Your task to perform on an android device: Open sound settings Image 0: 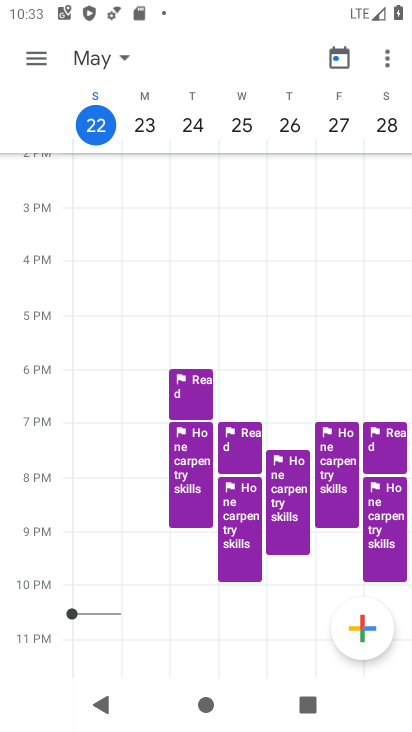
Step 0: press home button
Your task to perform on an android device: Open sound settings Image 1: 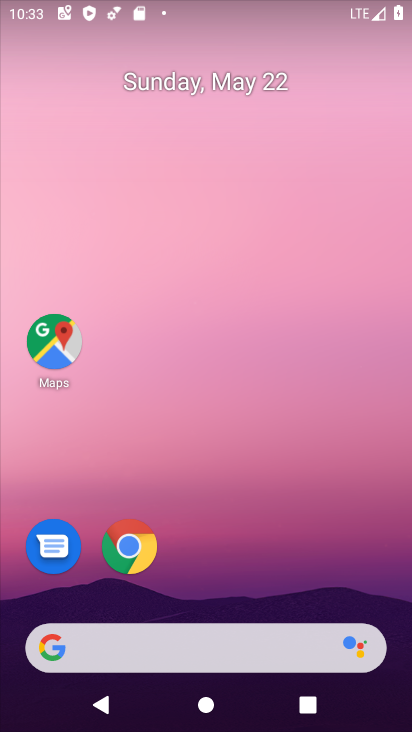
Step 1: drag from (181, 601) to (262, 91)
Your task to perform on an android device: Open sound settings Image 2: 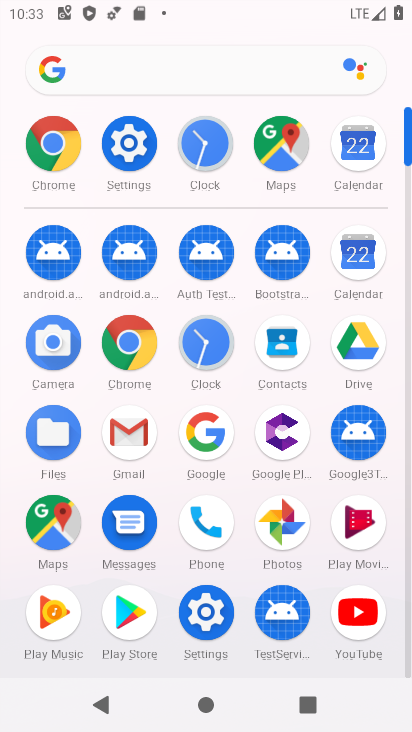
Step 2: click (130, 167)
Your task to perform on an android device: Open sound settings Image 3: 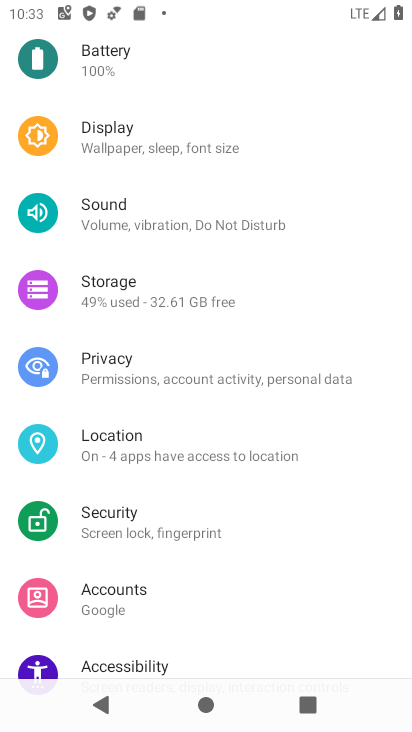
Step 3: click (145, 229)
Your task to perform on an android device: Open sound settings Image 4: 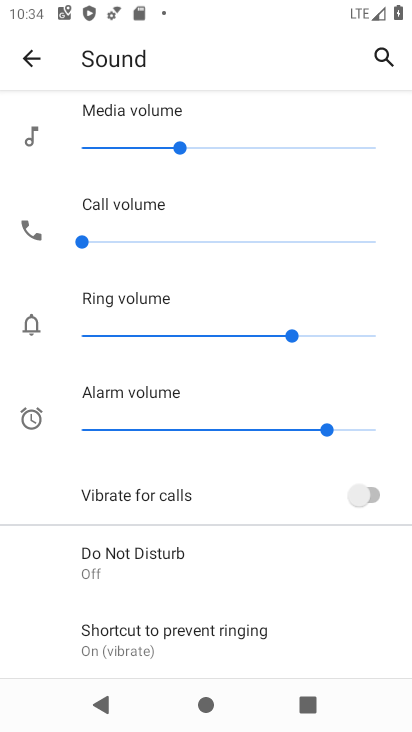
Step 4: task complete